Your task to perform on an android device: Go to Reddit.com Image 0: 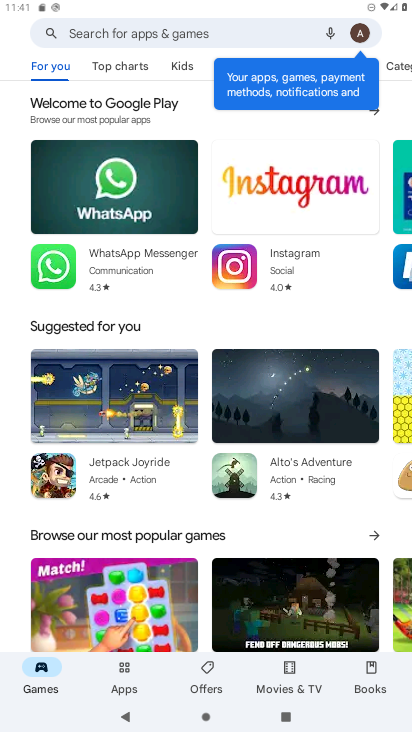
Step 0: press home button
Your task to perform on an android device: Go to Reddit.com Image 1: 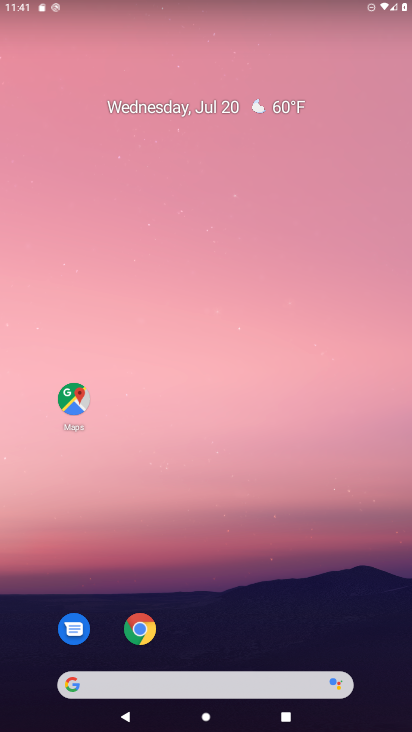
Step 1: click (153, 631)
Your task to perform on an android device: Go to Reddit.com Image 2: 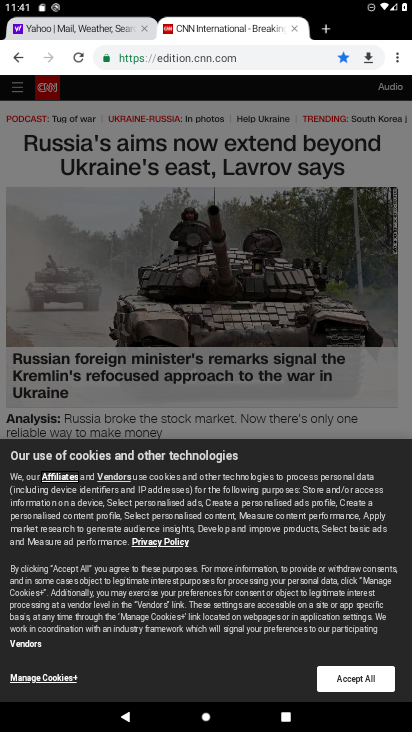
Step 2: click (329, 27)
Your task to perform on an android device: Go to Reddit.com Image 3: 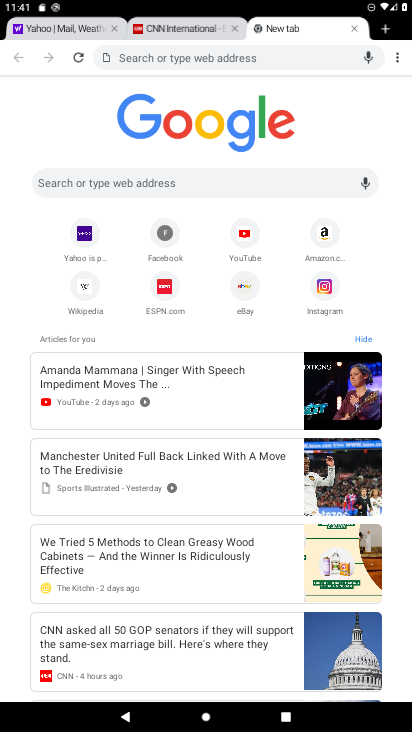
Step 3: type "Reddit.com"
Your task to perform on an android device: Go to Reddit.com Image 4: 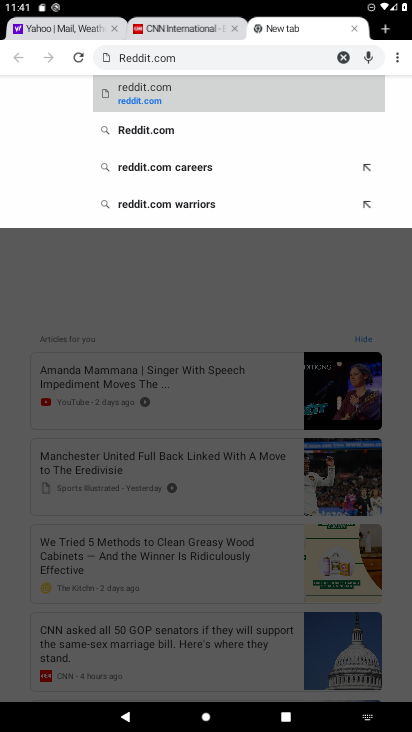
Step 4: click (242, 100)
Your task to perform on an android device: Go to Reddit.com Image 5: 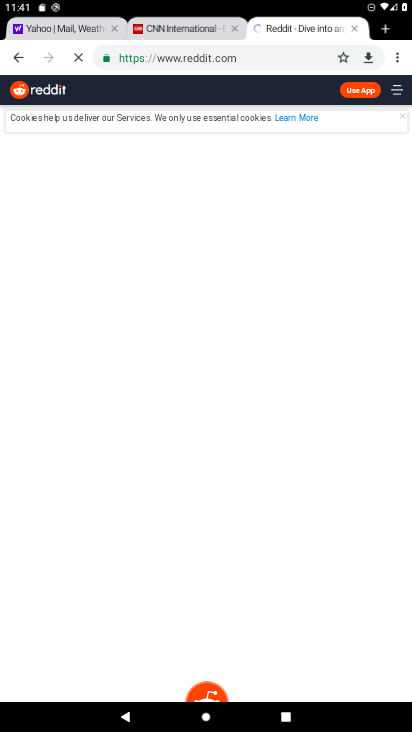
Step 5: task complete